Your task to perform on an android device: Open Yahoo.com Image 0: 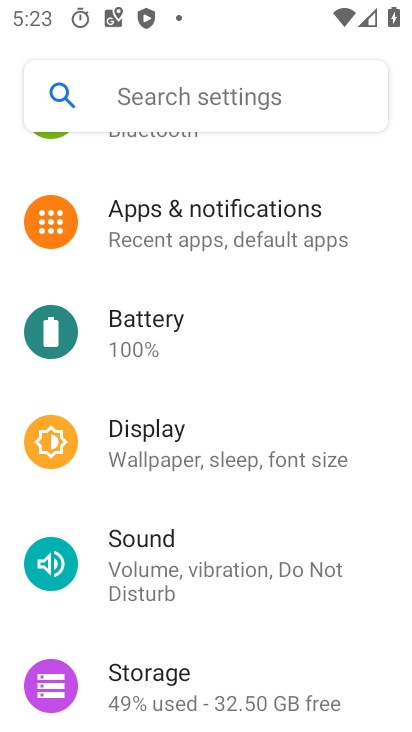
Step 0: press back button
Your task to perform on an android device: Open Yahoo.com Image 1: 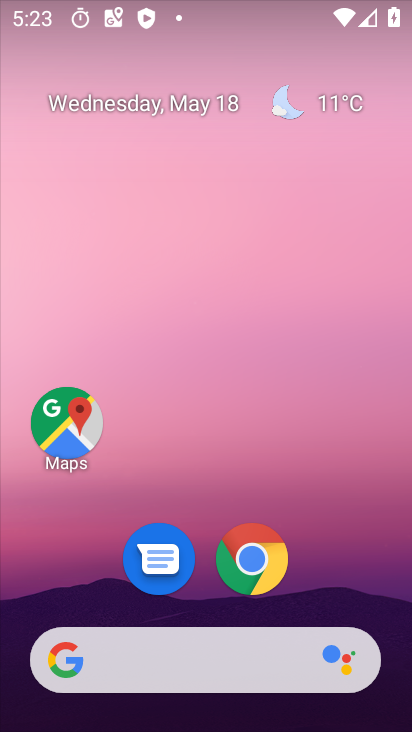
Step 1: click (267, 555)
Your task to perform on an android device: Open Yahoo.com Image 2: 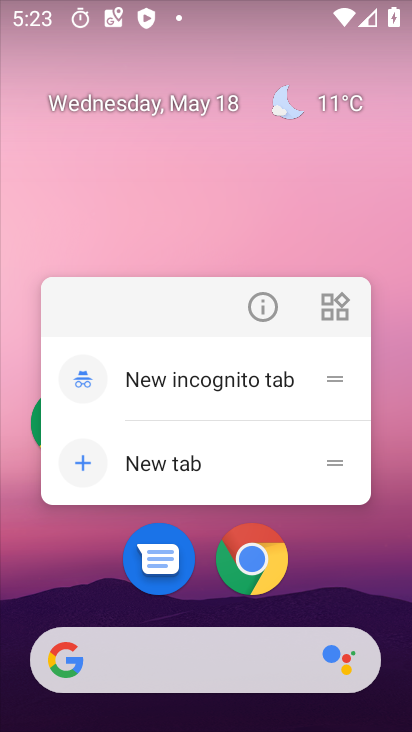
Step 2: click (254, 546)
Your task to perform on an android device: Open Yahoo.com Image 3: 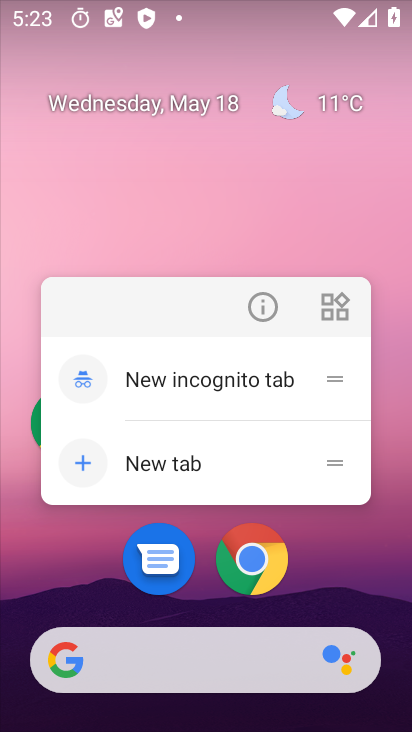
Step 3: click (257, 555)
Your task to perform on an android device: Open Yahoo.com Image 4: 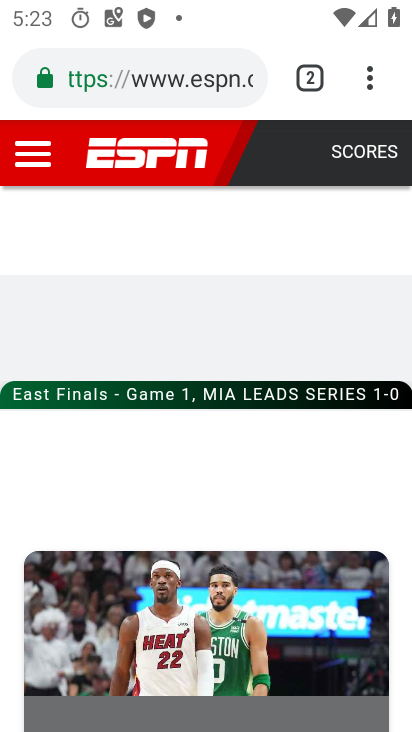
Step 4: click (310, 73)
Your task to perform on an android device: Open Yahoo.com Image 5: 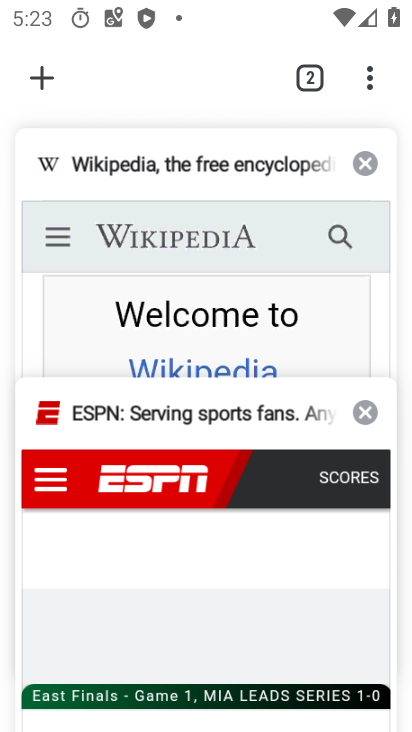
Step 5: click (41, 74)
Your task to perform on an android device: Open Yahoo.com Image 6: 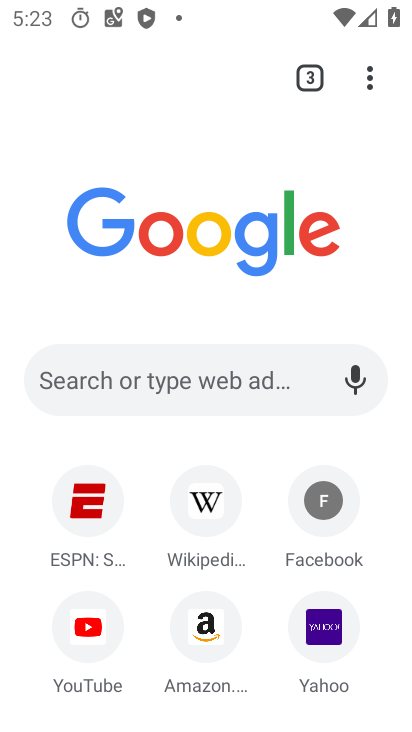
Step 6: click (328, 623)
Your task to perform on an android device: Open Yahoo.com Image 7: 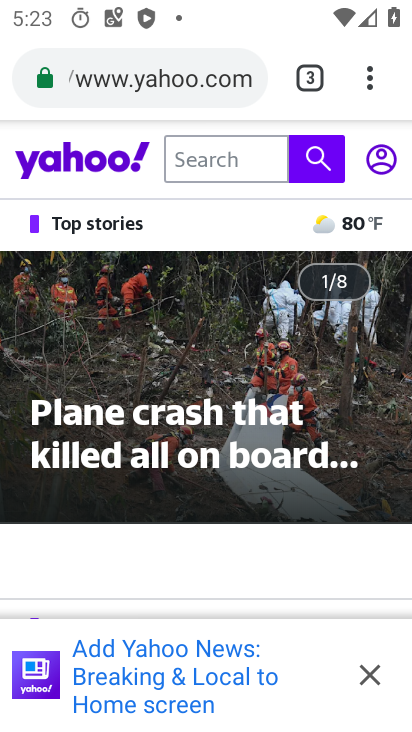
Step 7: task complete